Your task to perform on an android device: clear all cookies in the chrome app Image 0: 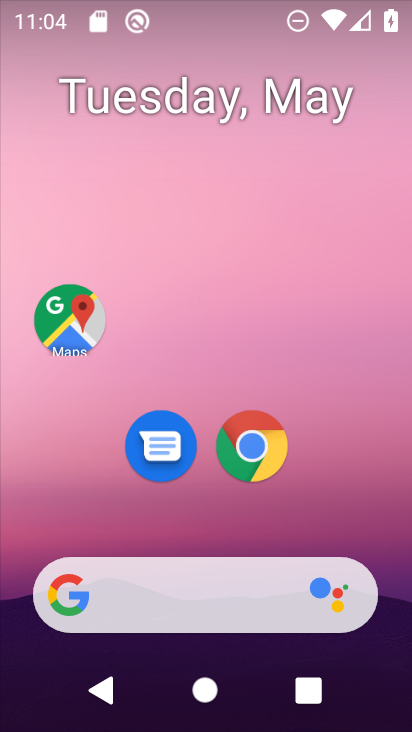
Step 0: click (270, 441)
Your task to perform on an android device: clear all cookies in the chrome app Image 1: 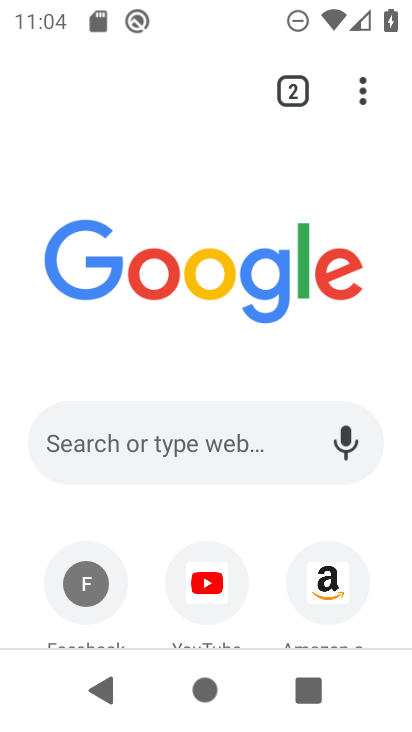
Step 1: click (354, 91)
Your task to perform on an android device: clear all cookies in the chrome app Image 2: 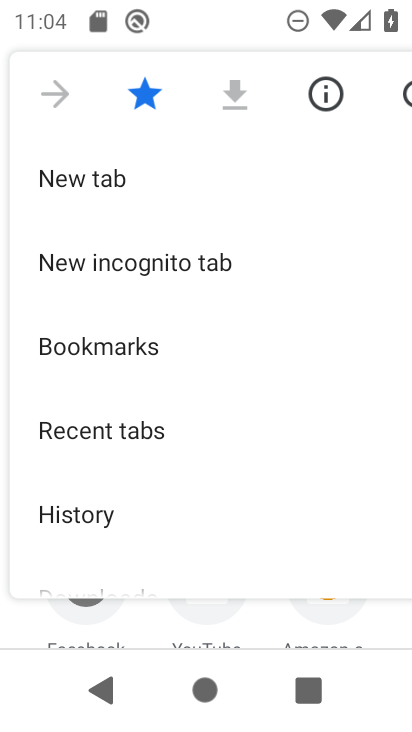
Step 2: drag from (102, 465) to (125, 380)
Your task to perform on an android device: clear all cookies in the chrome app Image 3: 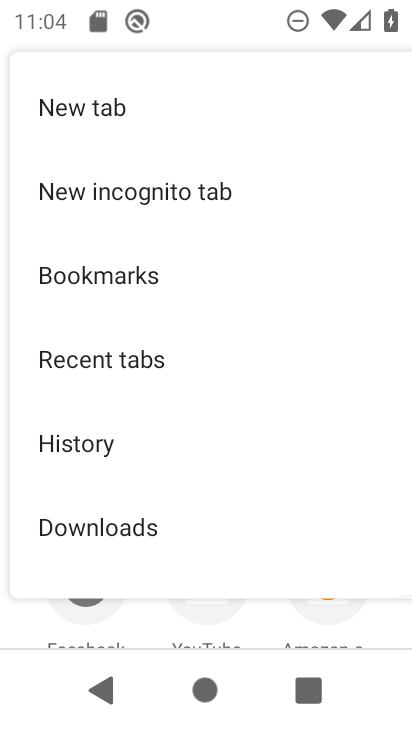
Step 3: click (105, 444)
Your task to perform on an android device: clear all cookies in the chrome app Image 4: 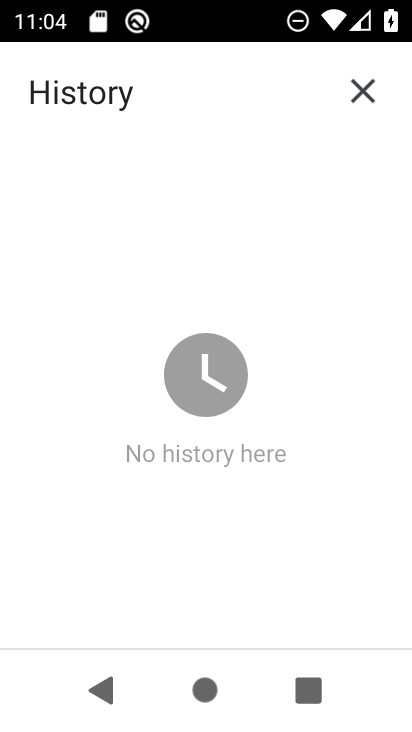
Step 4: task complete